Your task to perform on an android device: turn notification dots on Image 0: 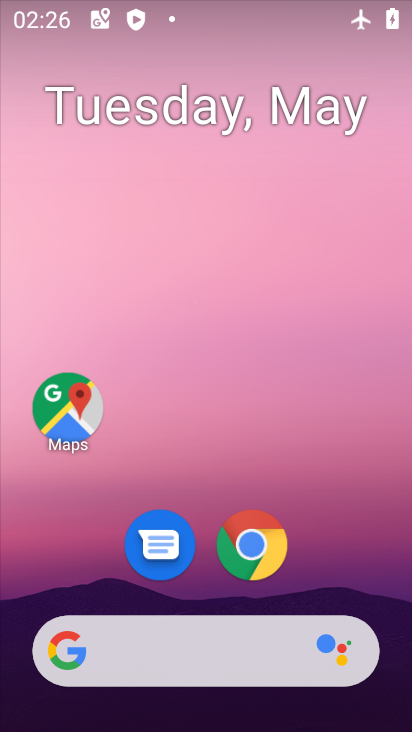
Step 0: drag from (389, 620) to (346, 15)
Your task to perform on an android device: turn notification dots on Image 1: 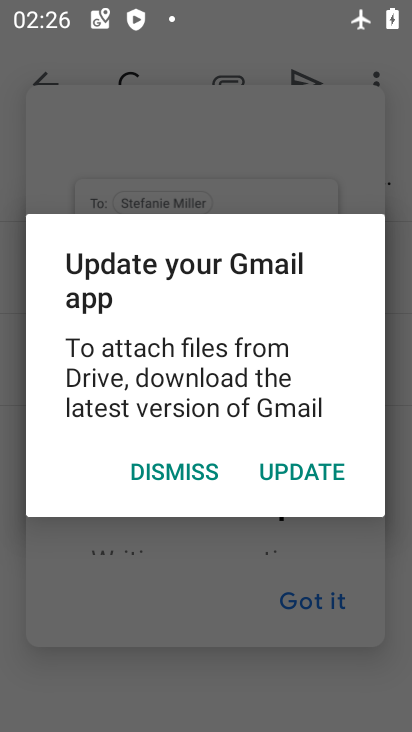
Step 1: press home button
Your task to perform on an android device: turn notification dots on Image 2: 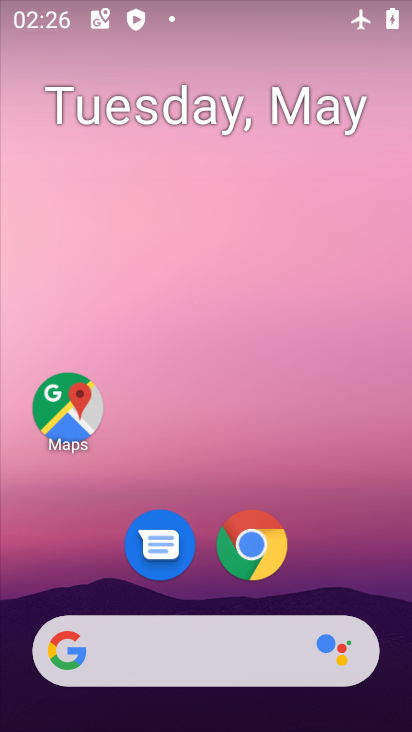
Step 2: drag from (387, 647) to (264, 26)
Your task to perform on an android device: turn notification dots on Image 3: 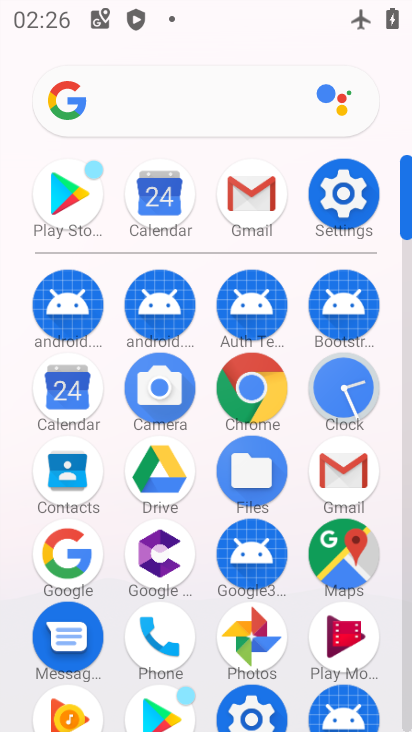
Step 3: click (404, 693)
Your task to perform on an android device: turn notification dots on Image 4: 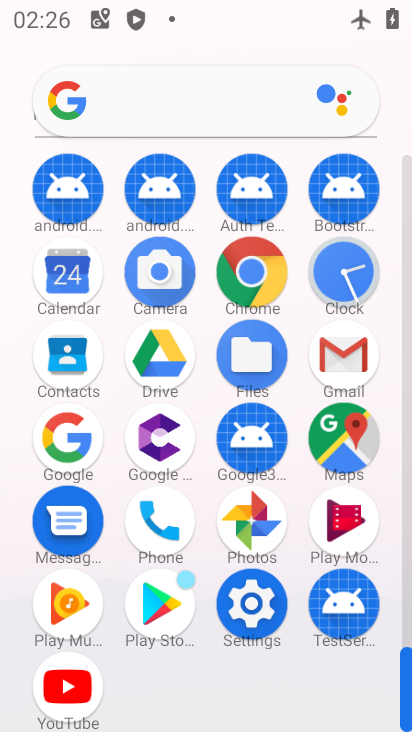
Step 4: click (247, 604)
Your task to perform on an android device: turn notification dots on Image 5: 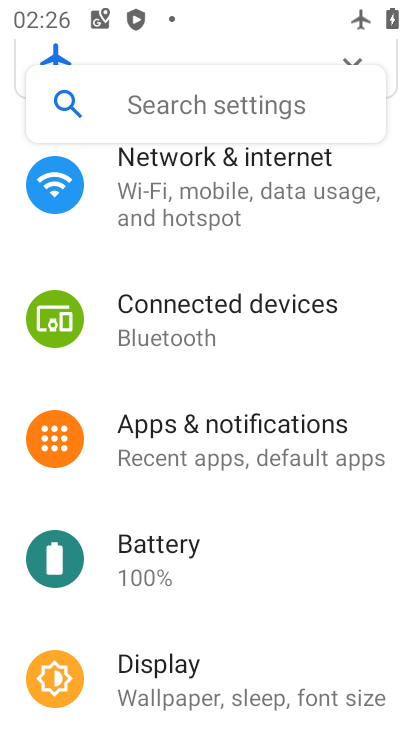
Step 5: click (205, 429)
Your task to perform on an android device: turn notification dots on Image 6: 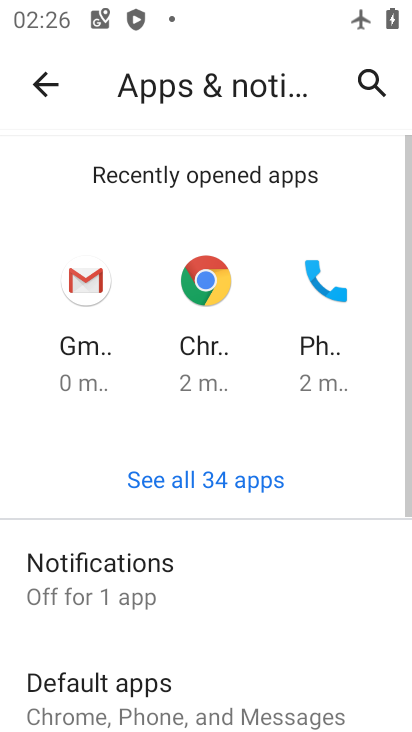
Step 6: click (155, 588)
Your task to perform on an android device: turn notification dots on Image 7: 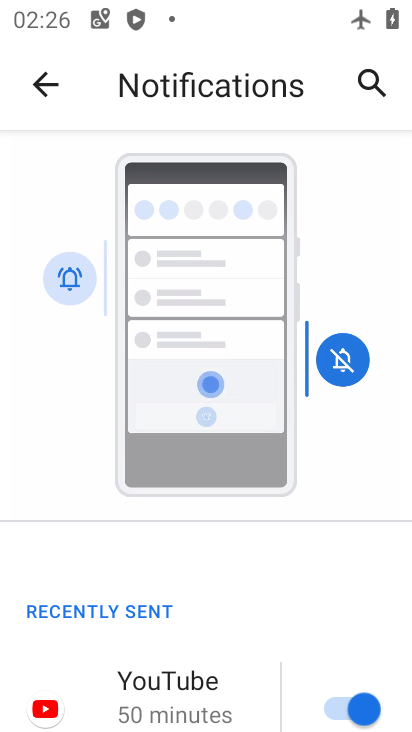
Step 7: drag from (287, 698) to (250, 127)
Your task to perform on an android device: turn notification dots on Image 8: 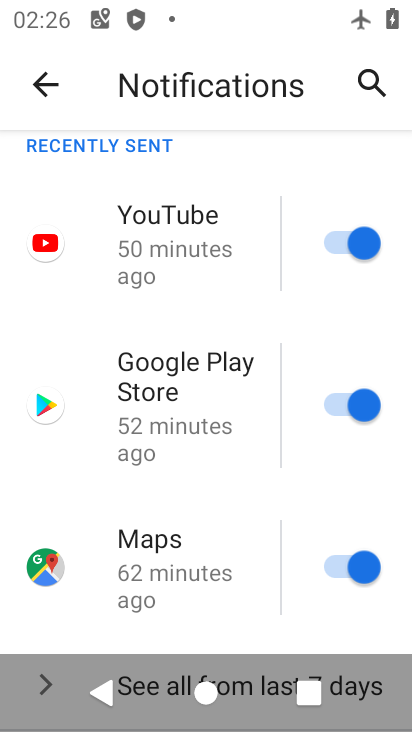
Step 8: drag from (279, 630) to (245, 149)
Your task to perform on an android device: turn notification dots on Image 9: 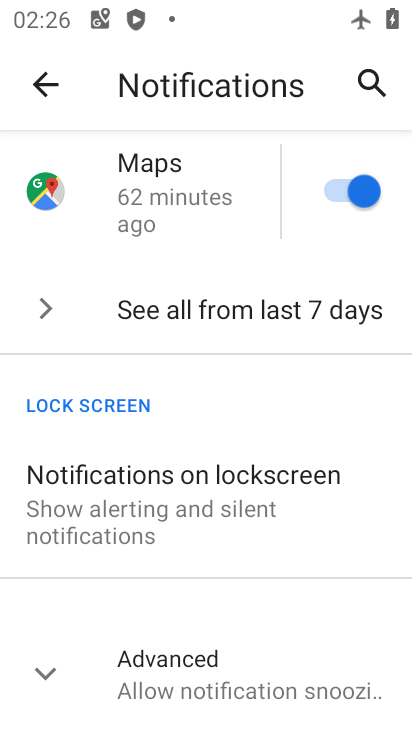
Step 9: click (43, 672)
Your task to perform on an android device: turn notification dots on Image 10: 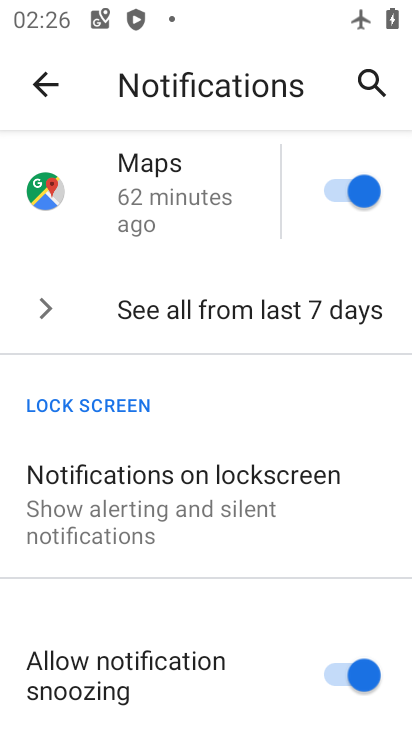
Step 10: task complete